Your task to perform on an android device: Add asus rog to the cart on target.com, then select checkout. Image 0: 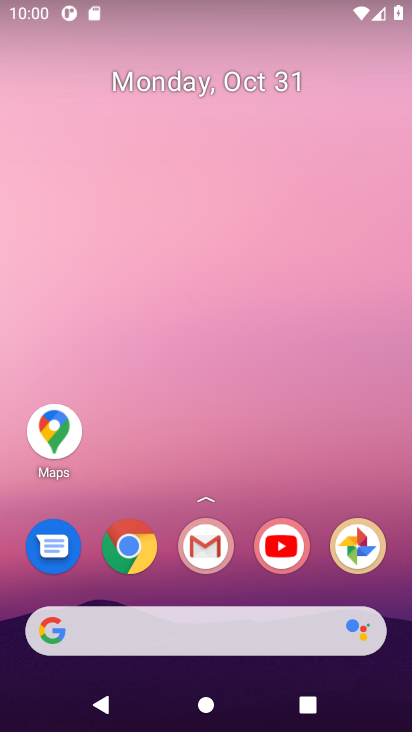
Step 0: click (131, 561)
Your task to perform on an android device: Add asus rog to the cart on target.com, then select checkout. Image 1: 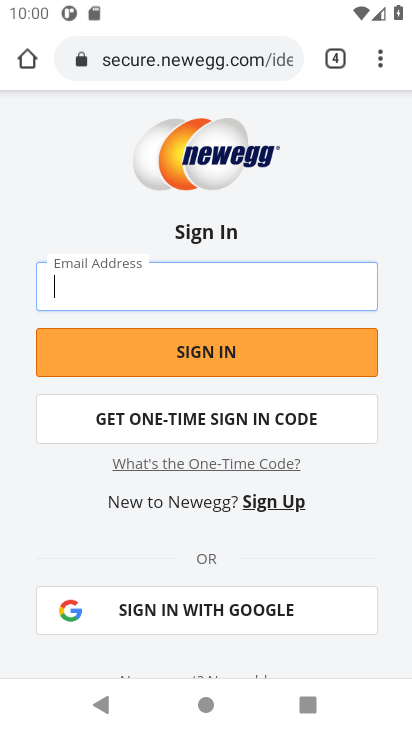
Step 1: click (164, 65)
Your task to perform on an android device: Add asus rog to the cart on target.com, then select checkout. Image 2: 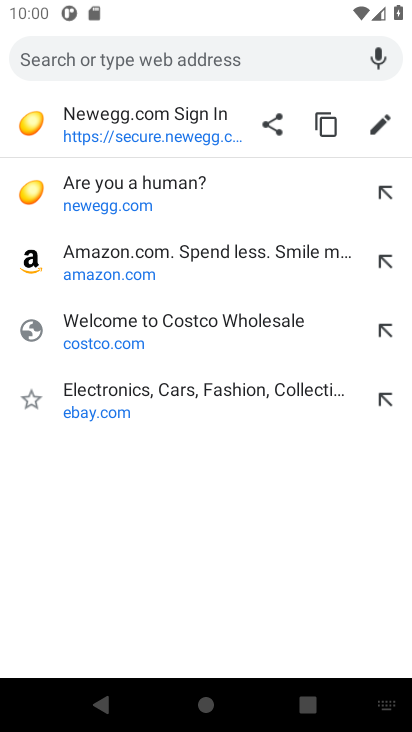
Step 2: type "target.com"
Your task to perform on an android device: Add asus rog to the cart on target.com, then select checkout. Image 3: 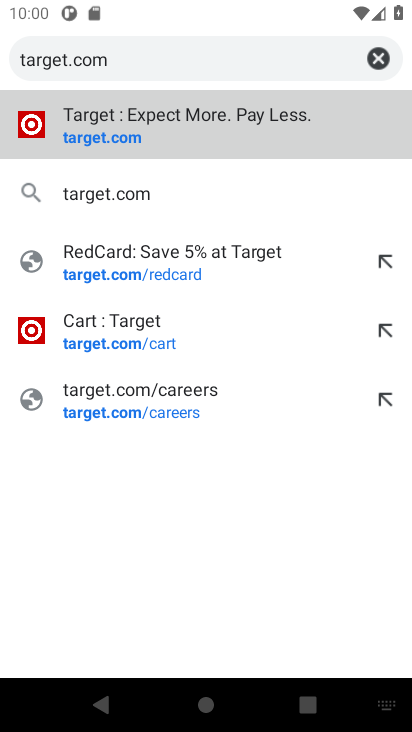
Step 3: press enter
Your task to perform on an android device: Add asus rog to the cart on target.com, then select checkout. Image 4: 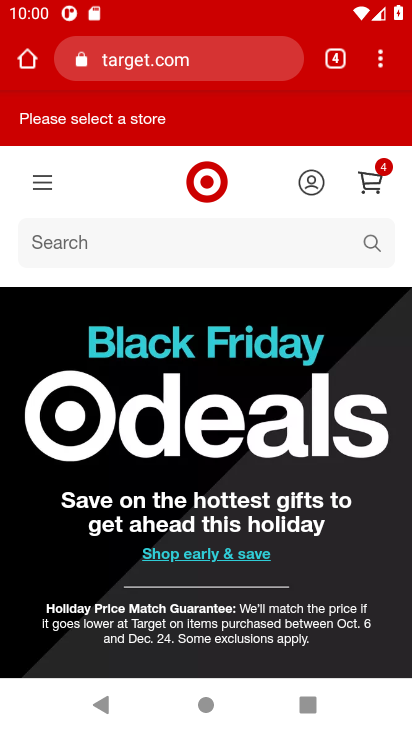
Step 4: click (264, 249)
Your task to perform on an android device: Add asus rog to the cart on target.com, then select checkout. Image 5: 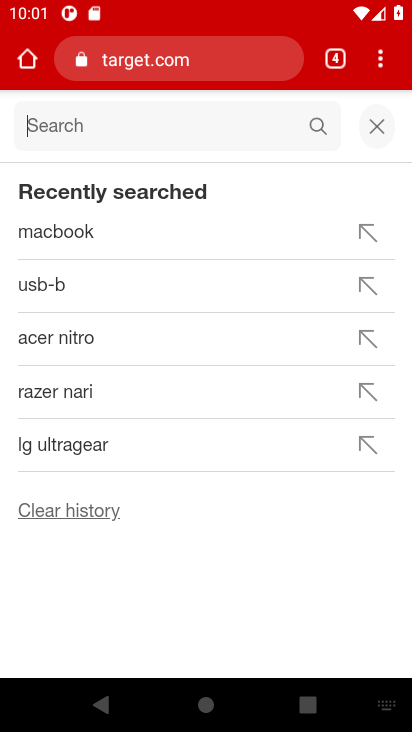
Step 5: type "asus rog"
Your task to perform on an android device: Add asus rog to the cart on target.com, then select checkout. Image 6: 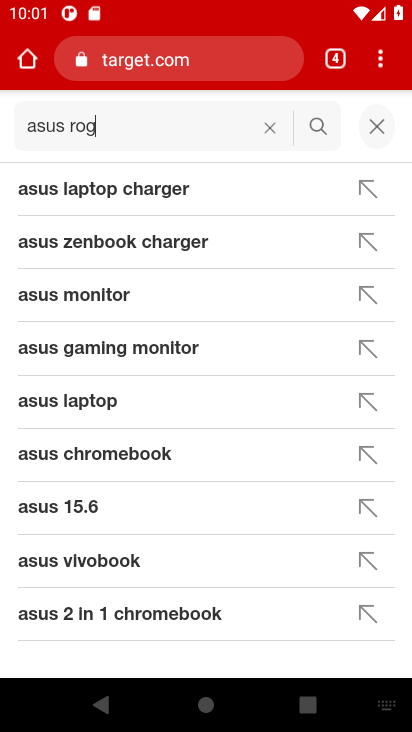
Step 6: press enter
Your task to perform on an android device: Add asus rog to the cart on target.com, then select checkout. Image 7: 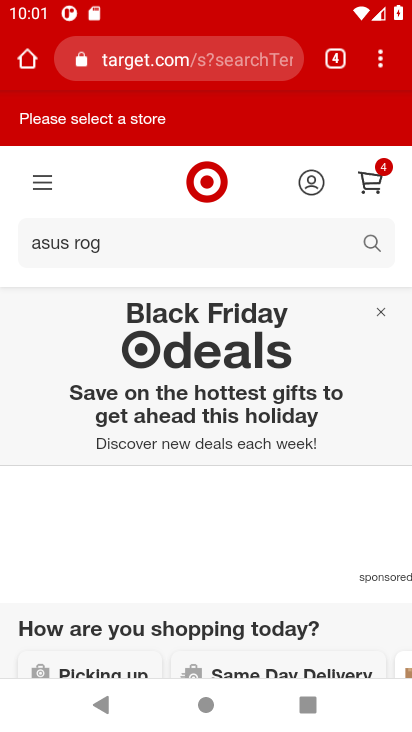
Step 7: drag from (219, 622) to (269, 265)
Your task to perform on an android device: Add asus rog to the cart on target.com, then select checkout. Image 8: 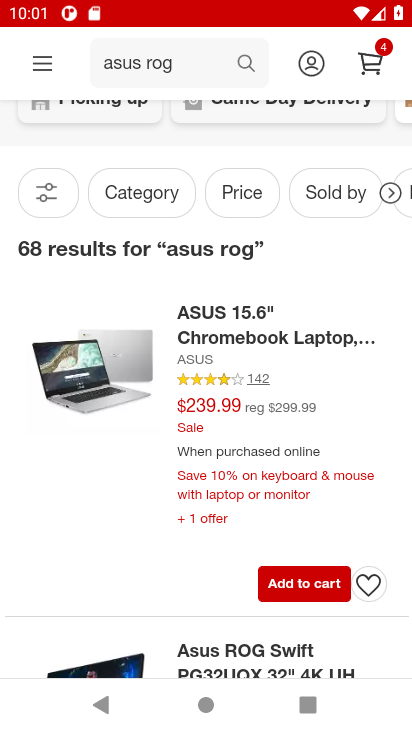
Step 8: click (294, 584)
Your task to perform on an android device: Add asus rog to the cart on target.com, then select checkout. Image 9: 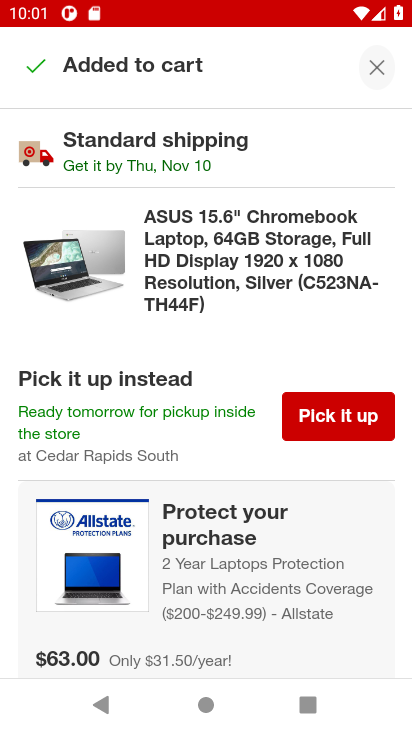
Step 9: drag from (221, 550) to (217, 293)
Your task to perform on an android device: Add asus rog to the cart on target.com, then select checkout. Image 10: 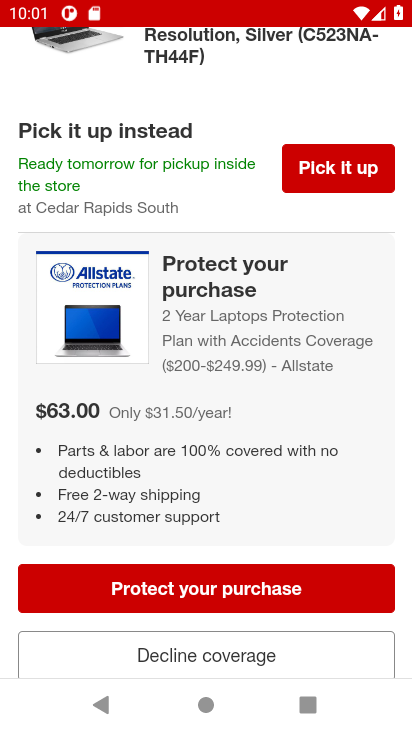
Step 10: drag from (234, 539) to (284, 331)
Your task to perform on an android device: Add asus rog to the cart on target.com, then select checkout. Image 11: 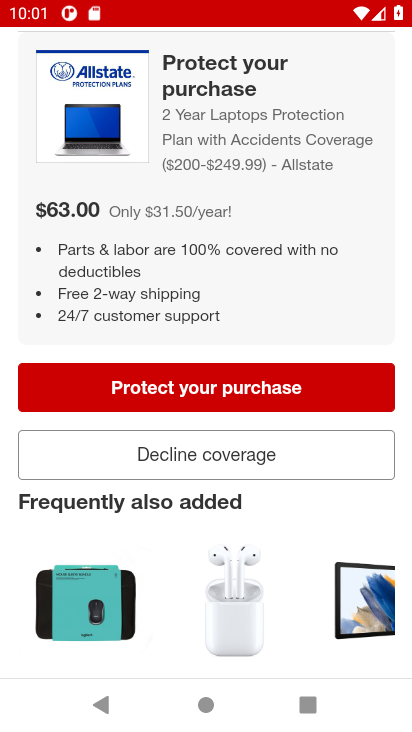
Step 11: drag from (277, 462) to (266, 702)
Your task to perform on an android device: Add asus rog to the cart on target.com, then select checkout. Image 12: 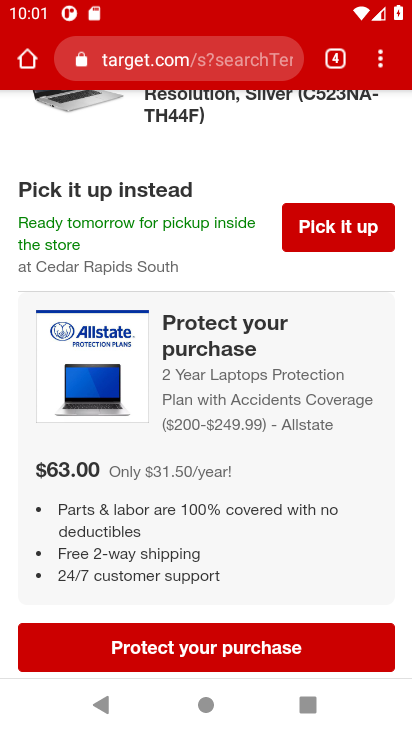
Step 12: drag from (201, 286) to (208, 591)
Your task to perform on an android device: Add asus rog to the cart on target.com, then select checkout. Image 13: 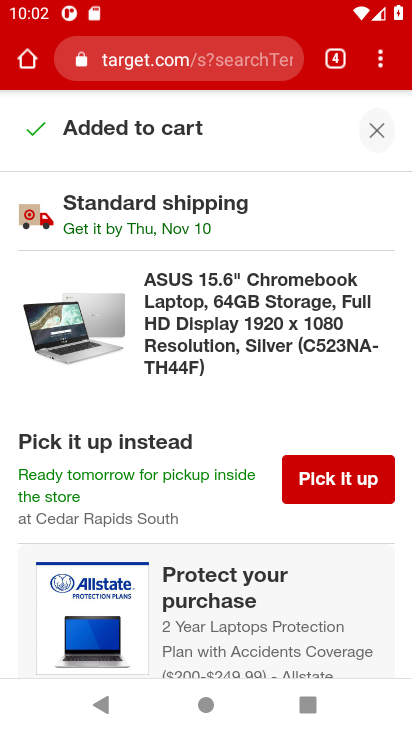
Step 13: drag from (236, 453) to (205, 670)
Your task to perform on an android device: Add asus rog to the cart on target.com, then select checkout. Image 14: 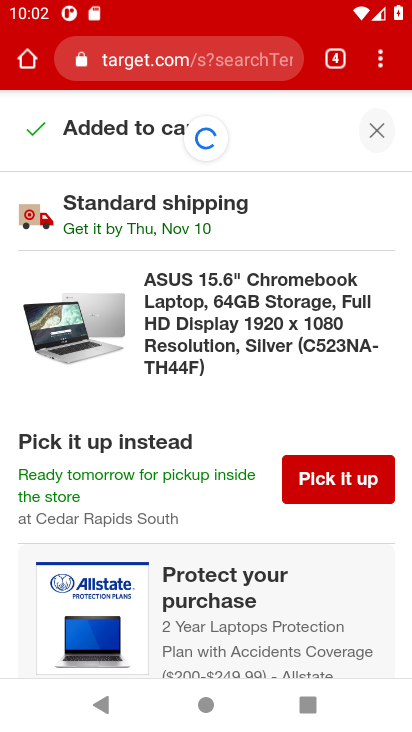
Step 14: drag from (232, 316) to (217, 418)
Your task to perform on an android device: Add asus rog to the cart on target.com, then select checkout. Image 15: 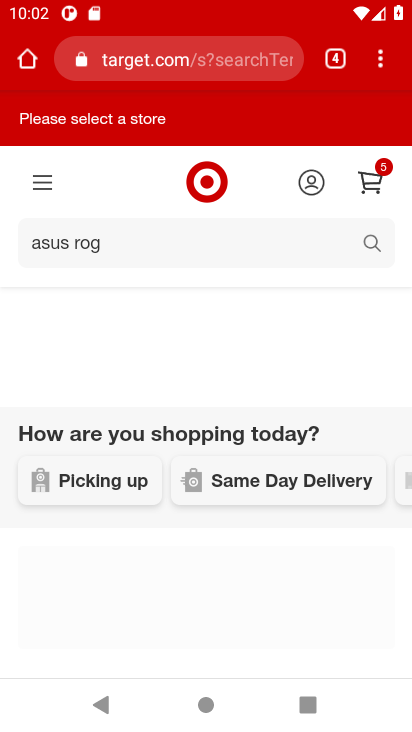
Step 15: click (368, 177)
Your task to perform on an android device: Add asus rog to the cart on target.com, then select checkout. Image 16: 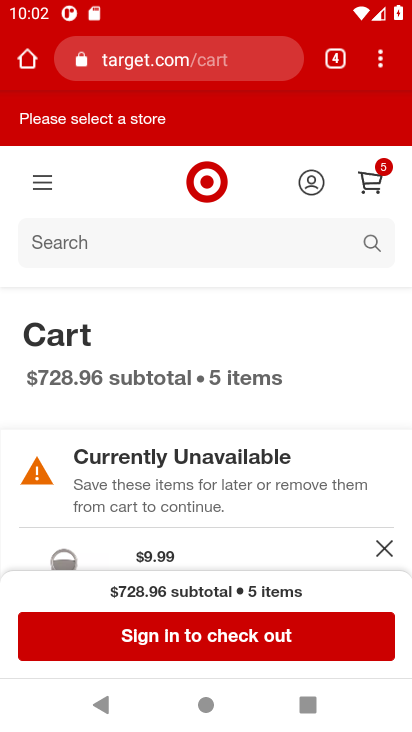
Step 16: click (250, 643)
Your task to perform on an android device: Add asus rog to the cart on target.com, then select checkout. Image 17: 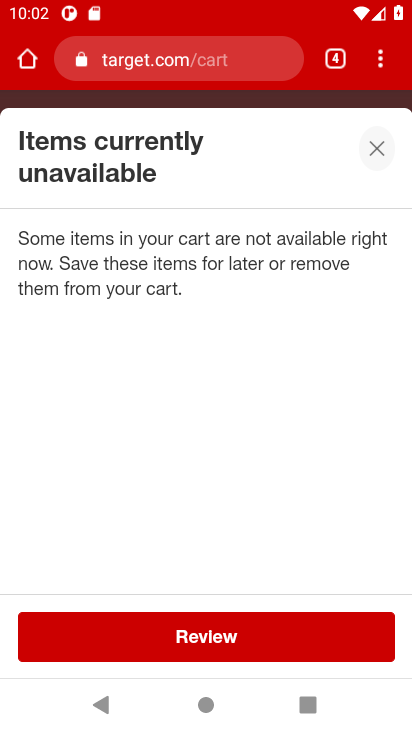
Step 17: click (288, 636)
Your task to perform on an android device: Add asus rog to the cart on target.com, then select checkout. Image 18: 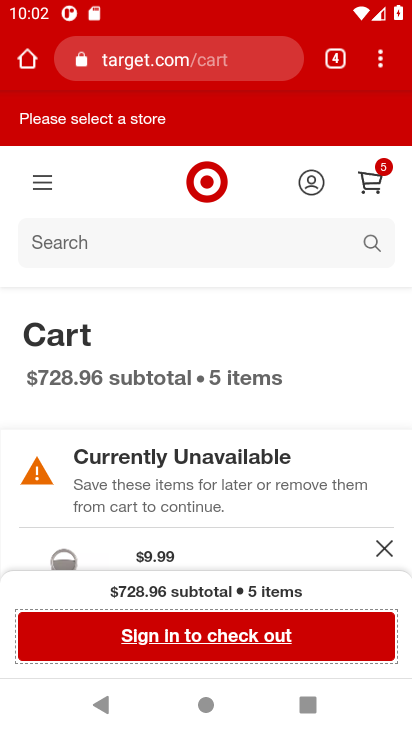
Step 18: task complete